Your task to perform on an android device: Is it going to rain tomorrow? Image 0: 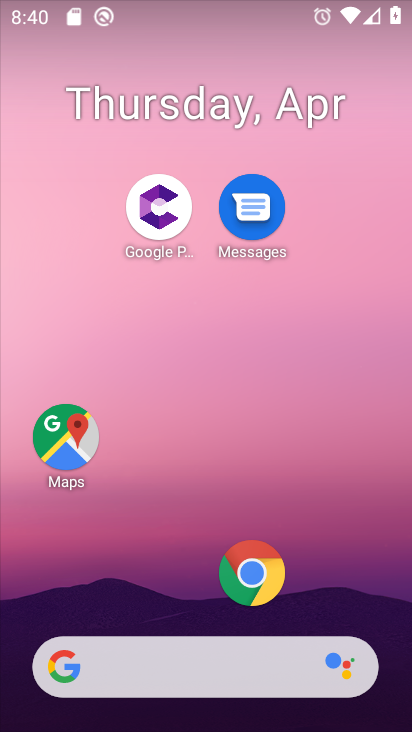
Step 0: drag from (3, 326) to (410, 322)
Your task to perform on an android device: Is it going to rain tomorrow? Image 1: 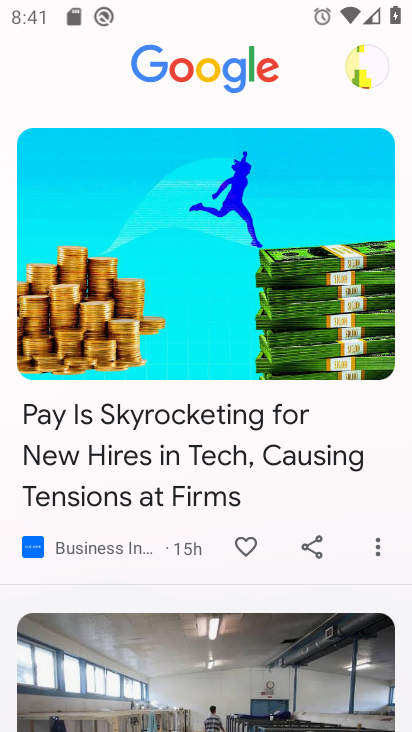
Step 1: task complete